Your task to perform on an android device: Do I have any events tomorrow? Image 0: 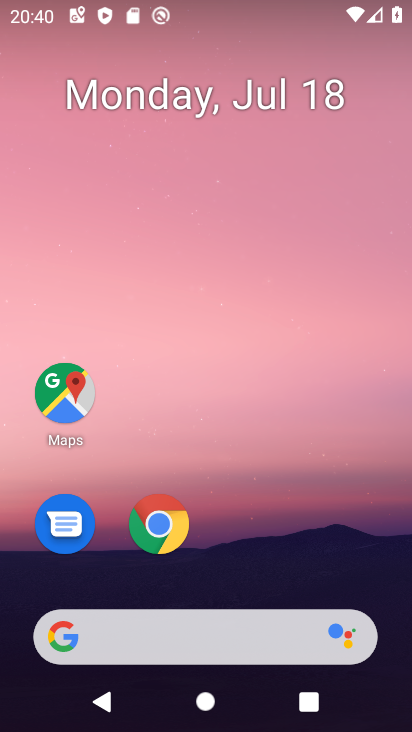
Step 0: drag from (242, 561) to (247, 85)
Your task to perform on an android device: Do I have any events tomorrow? Image 1: 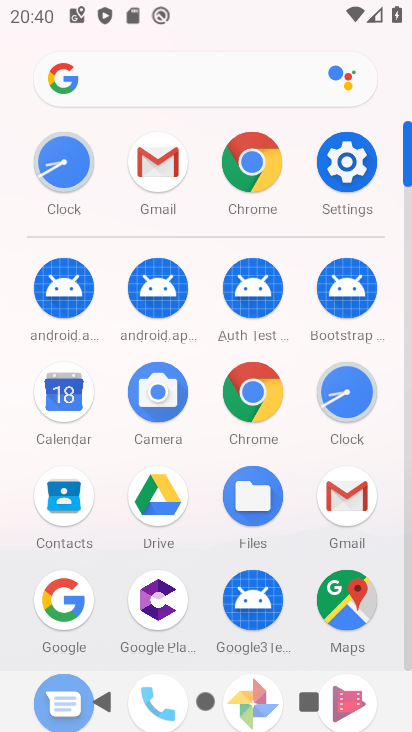
Step 1: click (61, 388)
Your task to perform on an android device: Do I have any events tomorrow? Image 2: 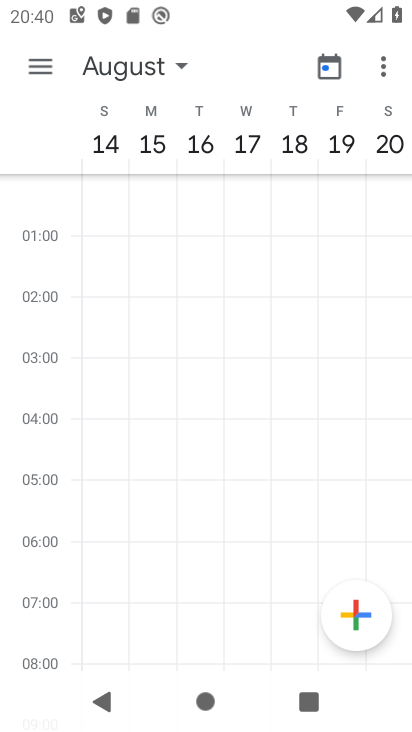
Step 2: task complete